Your task to perform on an android device: clear history in the chrome app Image 0: 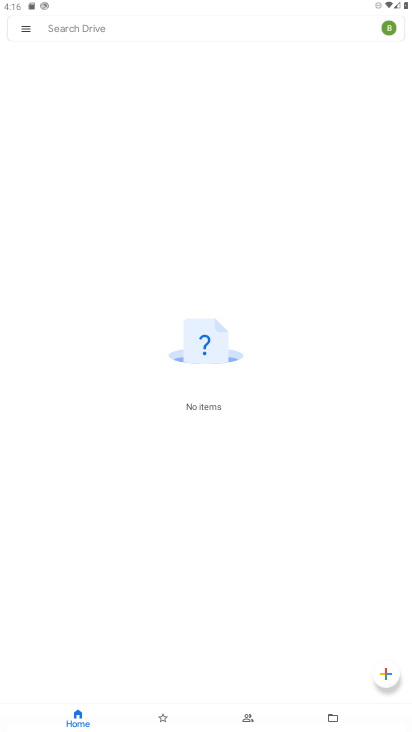
Step 0: press home button
Your task to perform on an android device: clear history in the chrome app Image 1: 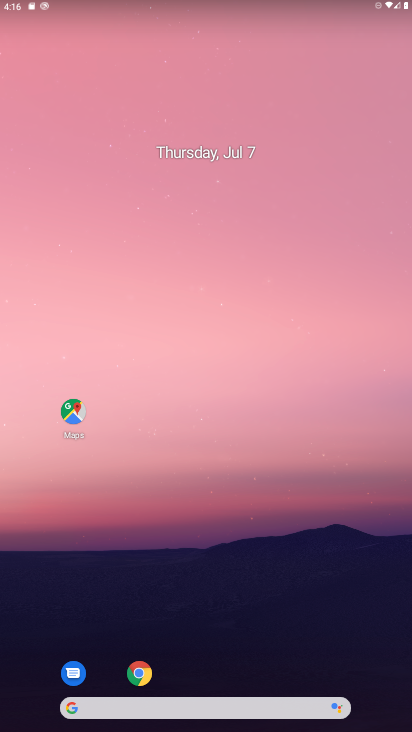
Step 1: click (137, 667)
Your task to perform on an android device: clear history in the chrome app Image 2: 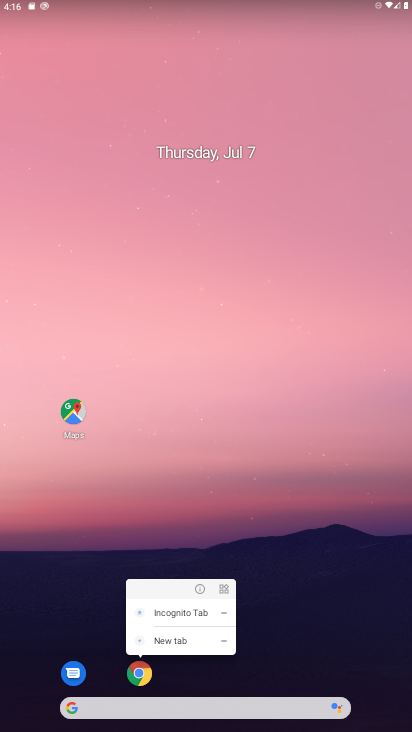
Step 2: click (138, 668)
Your task to perform on an android device: clear history in the chrome app Image 3: 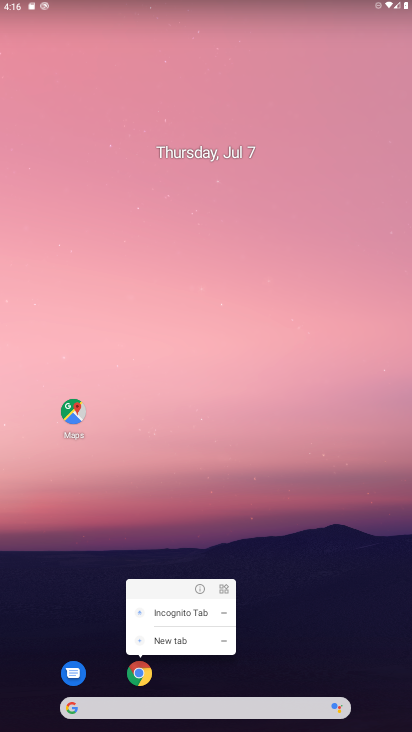
Step 3: click (134, 671)
Your task to perform on an android device: clear history in the chrome app Image 4: 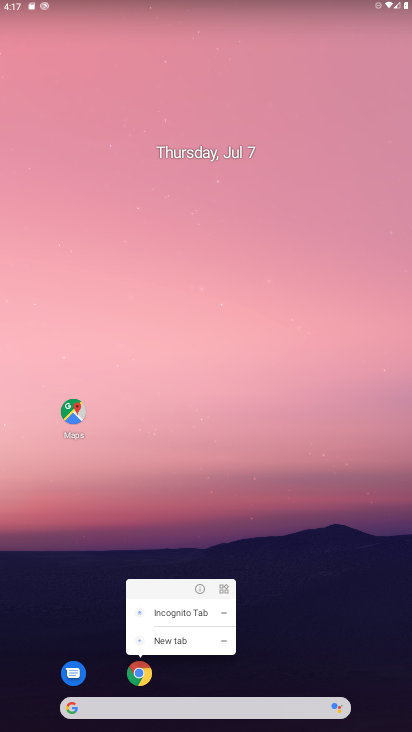
Step 4: click (138, 669)
Your task to perform on an android device: clear history in the chrome app Image 5: 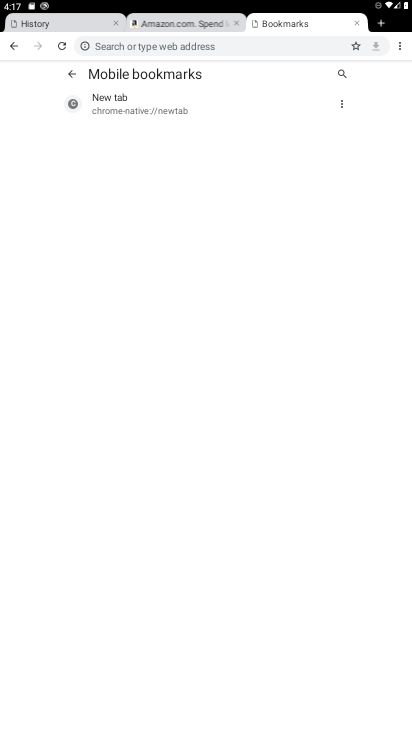
Step 5: click (356, 20)
Your task to perform on an android device: clear history in the chrome app Image 6: 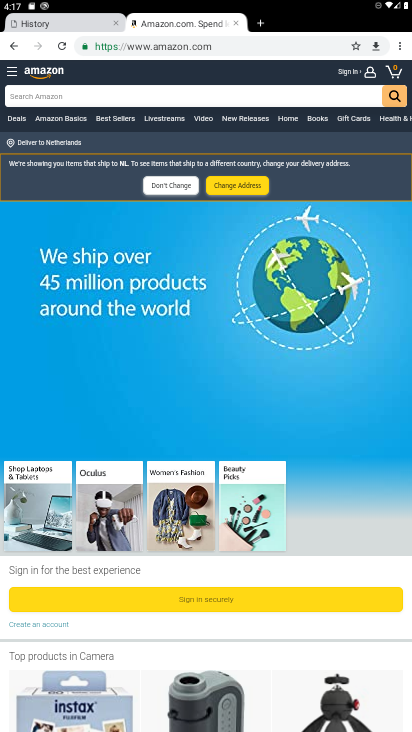
Step 6: click (400, 44)
Your task to perform on an android device: clear history in the chrome app Image 7: 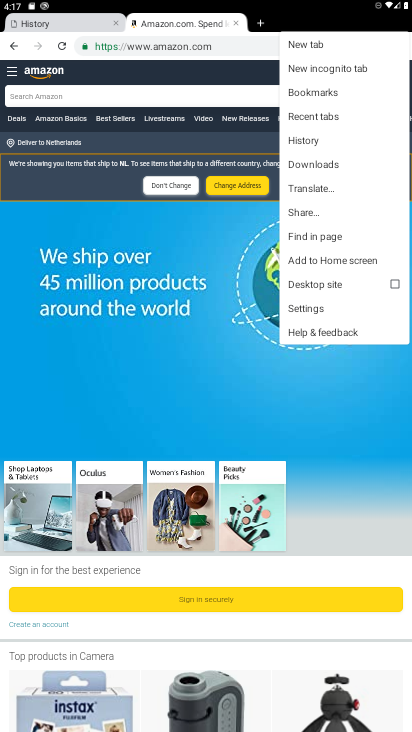
Step 7: click (321, 138)
Your task to perform on an android device: clear history in the chrome app Image 8: 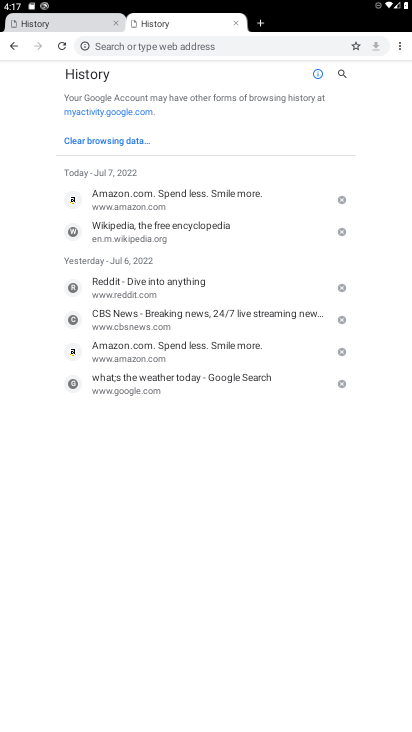
Step 8: click (105, 135)
Your task to perform on an android device: clear history in the chrome app Image 9: 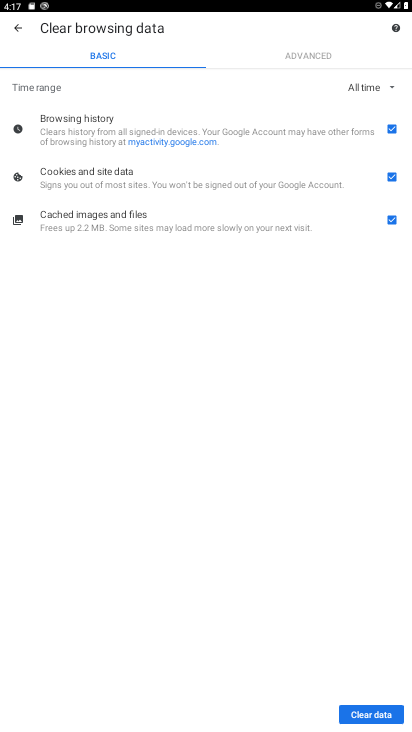
Step 9: click (380, 716)
Your task to perform on an android device: clear history in the chrome app Image 10: 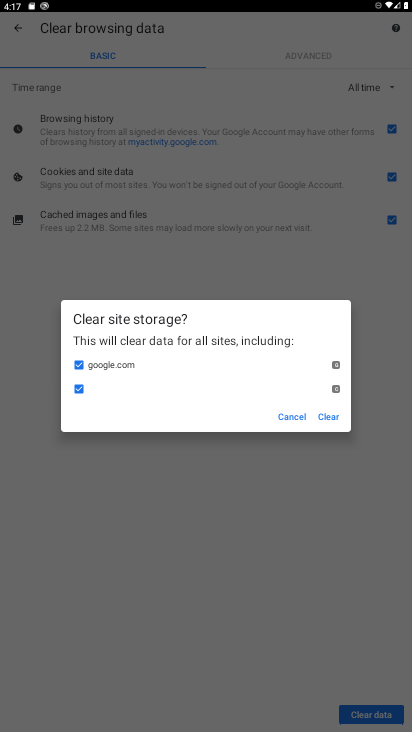
Step 10: click (333, 418)
Your task to perform on an android device: clear history in the chrome app Image 11: 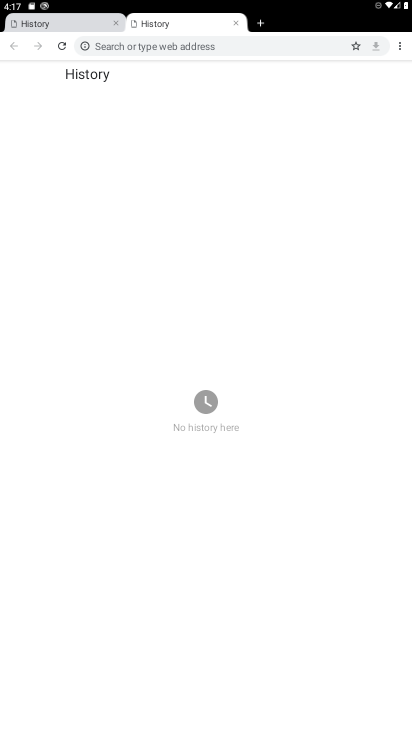
Step 11: task complete